Your task to perform on an android device: turn on sleep mode Image 0: 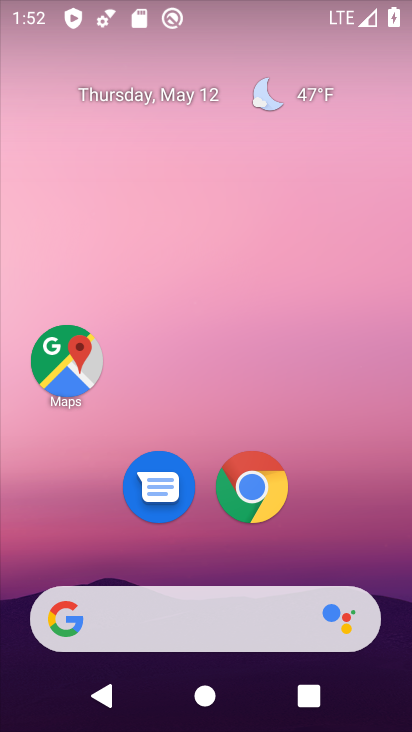
Step 0: drag from (332, 494) to (272, 119)
Your task to perform on an android device: turn on sleep mode Image 1: 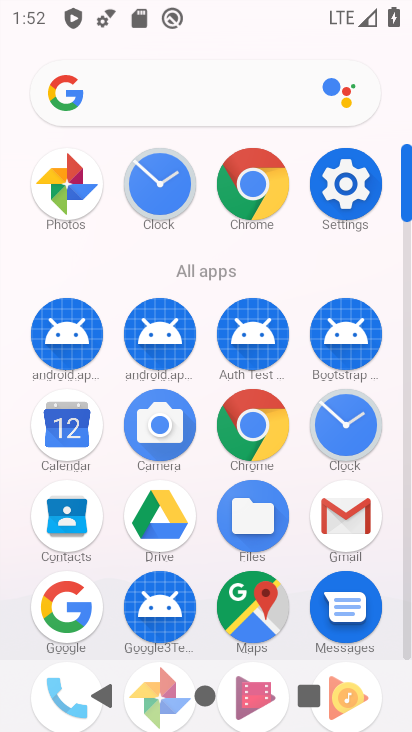
Step 1: click (321, 192)
Your task to perform on an android device: turn on sleep mode Image 2: 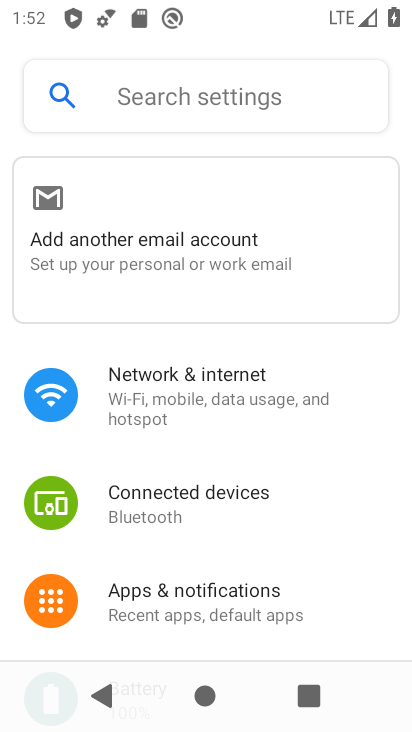
Step 2: drag from (253, 567) to (280, 278)
Your task to perform on an android device: turn on sleep mode Image 3: 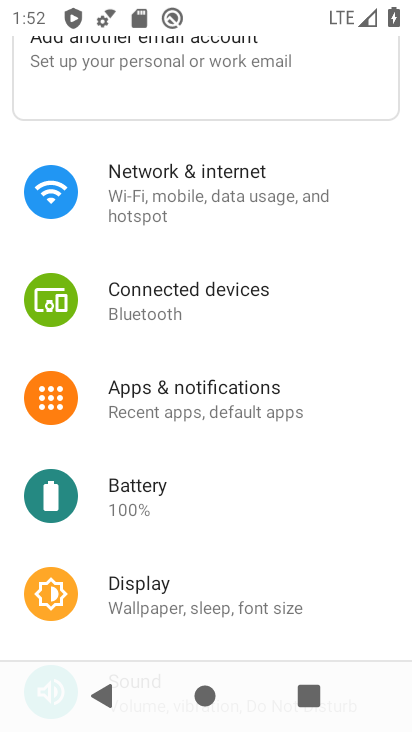
Step 3: click (146, 613)
Your task to perform on an android device: turn on sleep mode Image 4: 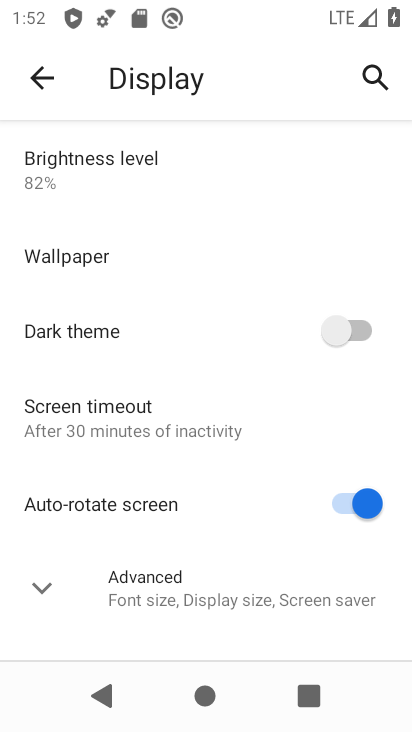
Step 4: click (131, 433)
Your task to perform on an android device: turn on sleep mode Image 5: 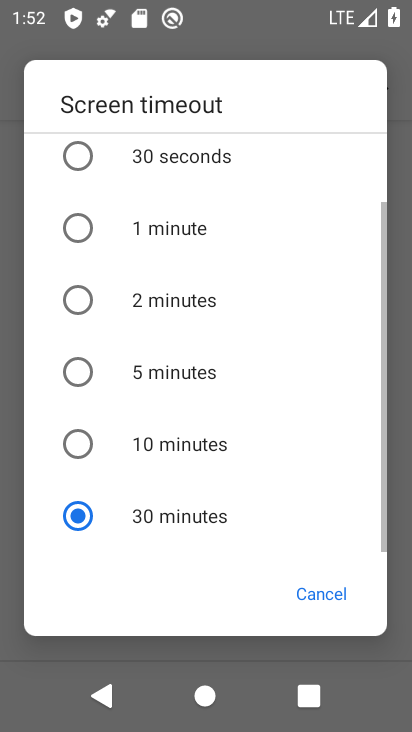
Step 5: task complete